Your task to perform on an android device: open the mobile data screen to see how much data has been used Image 0: 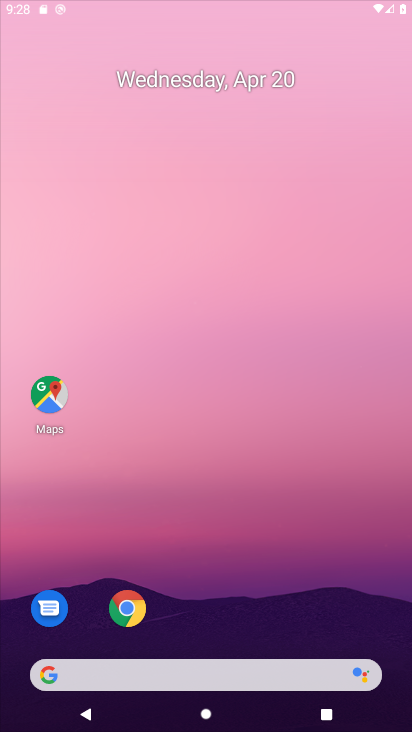
Step 0: drag from (186, 614) to (236, 69)
Your task to perform on an android device: open the mobile data screen to see how much data has been used Image 1: 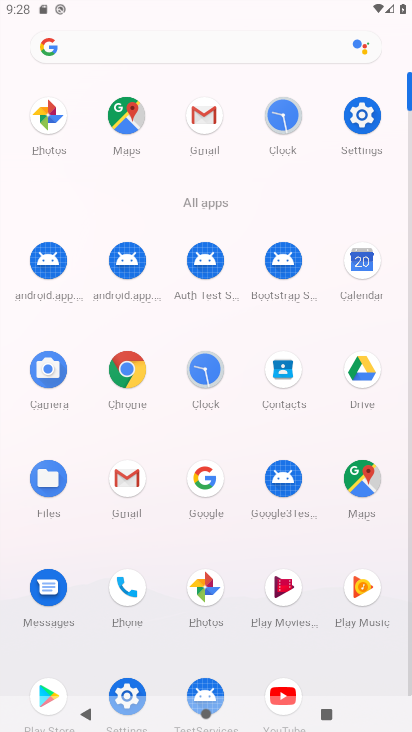
Step 1: click (363, 116)
Your task to perform on an android device: open the mobile data screen to see how much data has been used Image 2: 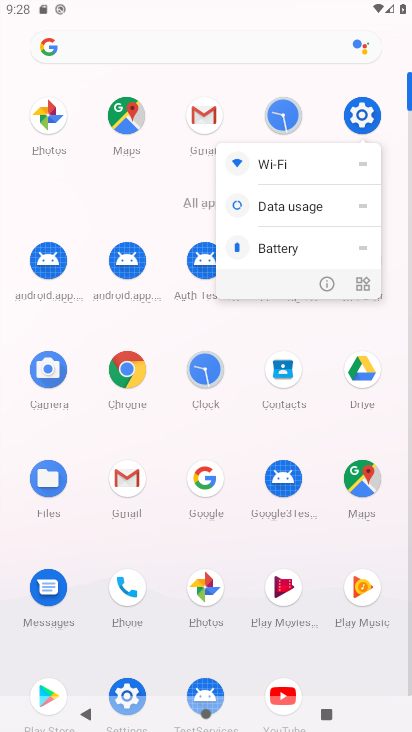
Step 2: click (315, 285)
Your task to perform on an android device: open the mobile data screen to see how much data has been used Image 3: 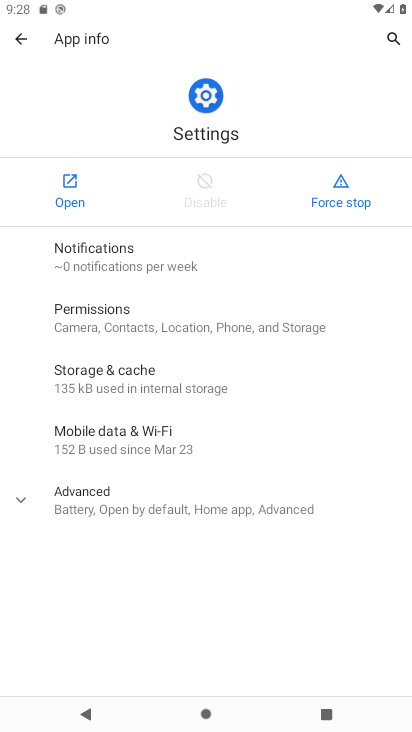
Step 3: click (69, 193)
Your task to perform on an android device: open the mobile data screen to see how much data has been used Image 4: 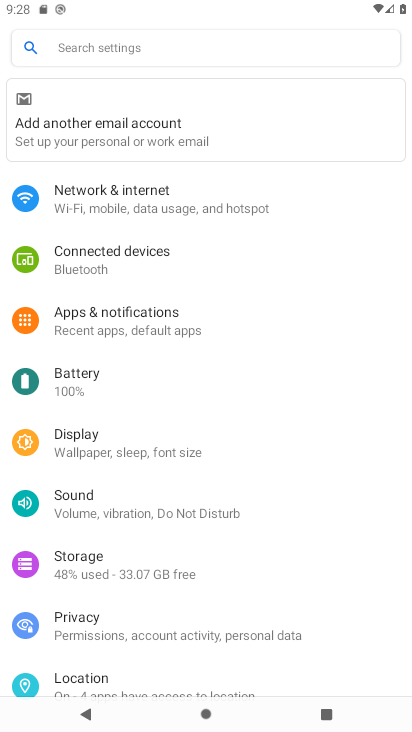
Step 4: click (121, 201)
Your task to perform on an android device: open the mobile data screen to see how much data has been used Image 5: 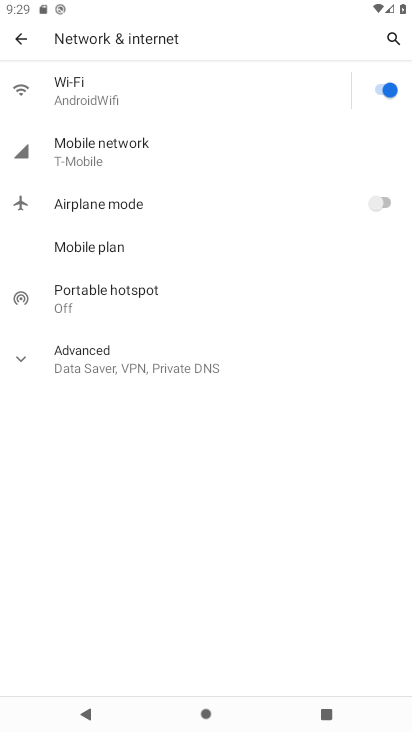
Step 5: click (100, 162)
Your task to perform on an android device: open the mobile data screen to see how much data has been used Image 6: 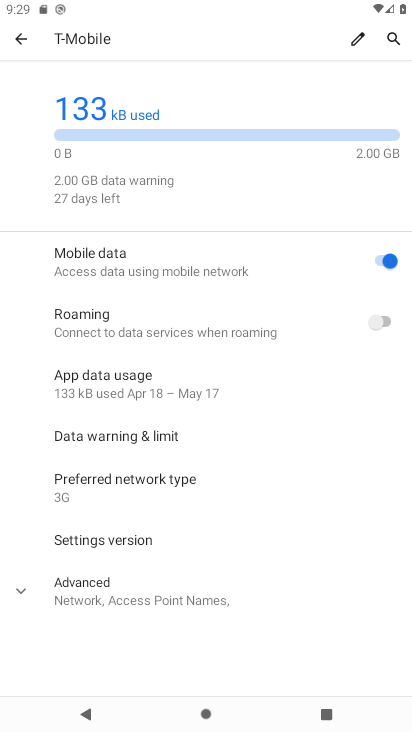
Step 6: task complete